Your task to perform on an android device: Open Amazon Image 0: 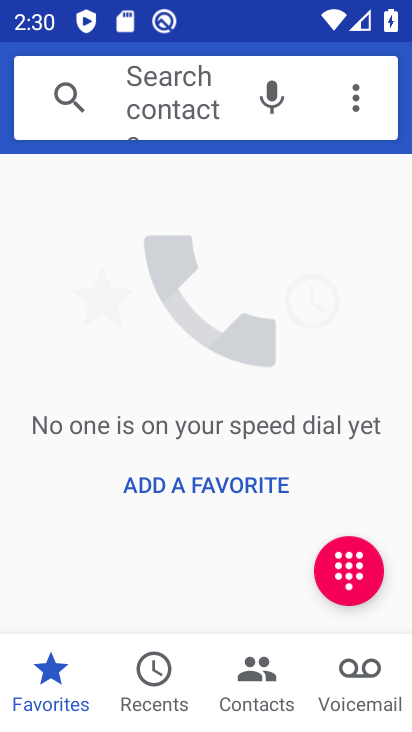
Step 0: press home button
Your task to perform on an android device: Open Amazon Image 1: 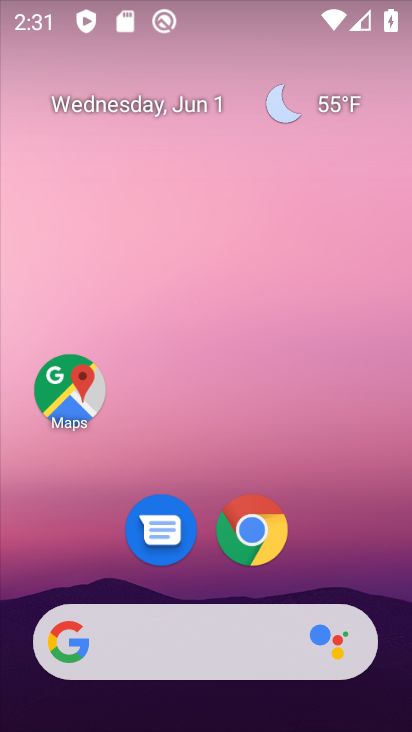
Step 1: click (176, 589)
Your task to perform on an android device: Open Amazon Image 2: 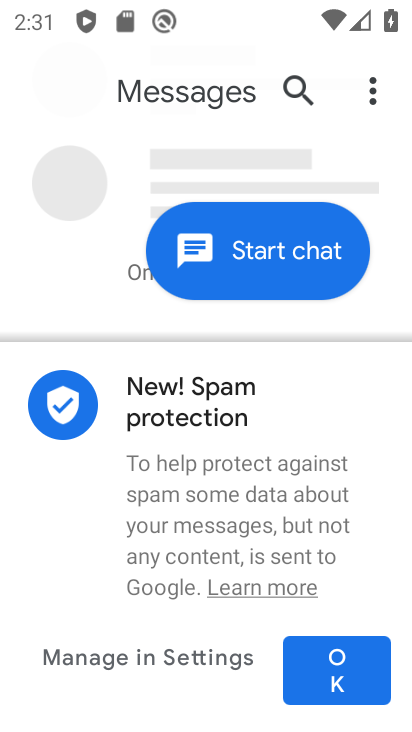
Step 2: click (176, 589)
Your task to perform on an android device: Open Amazon Image 3: 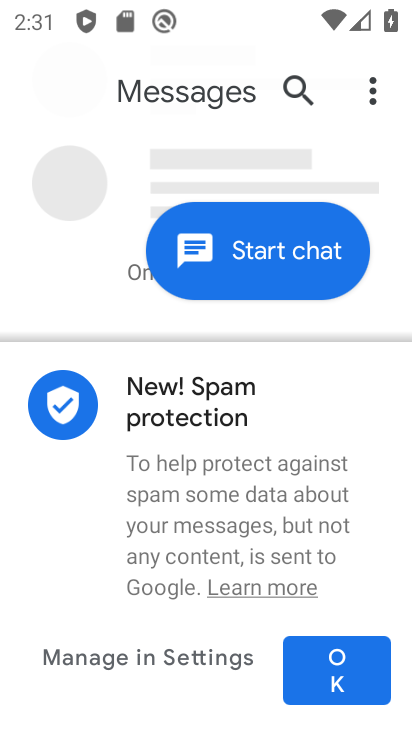
Step 3: press home button
Your task to perform on an android device: Open Amazon Image 4: 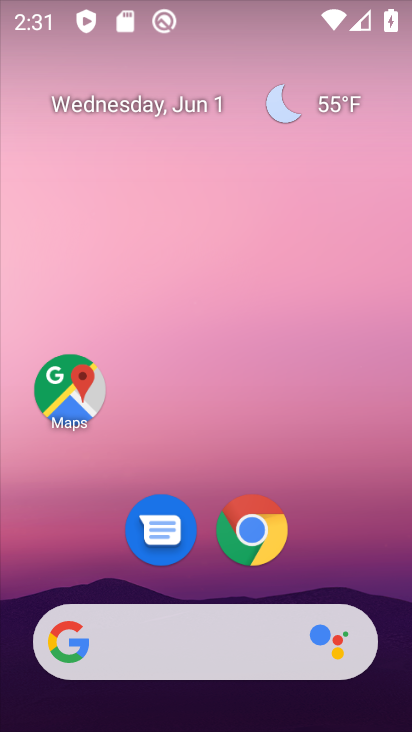
Step 4: click (278, 526)
Your task to perform on an android device: Open Amazon Image 5: 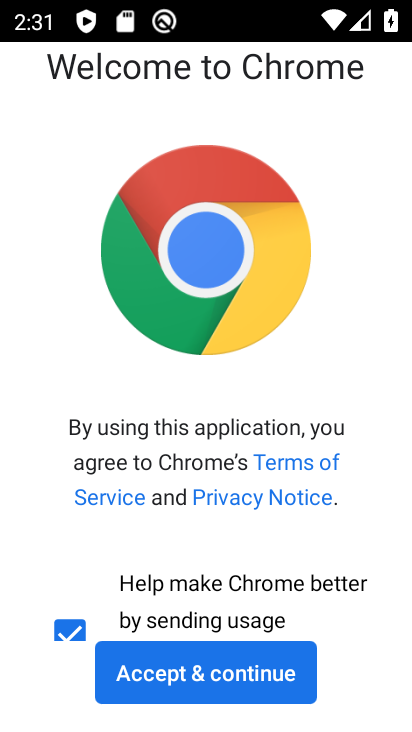
Step 5: click (222, 653)
Your task to perform on an android device: Open Amazon Image 6: 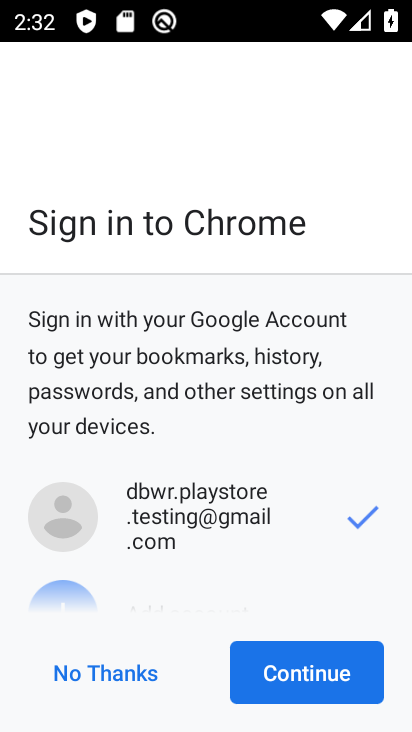
Step 6: click (305, 692)
Your task to perform on an android device: Open Amazon Image 7: 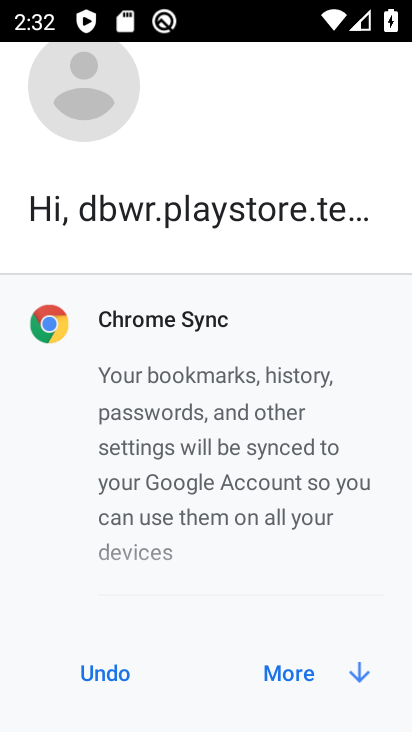
Step 7: click (302, 667)
Your task to perform on an android device: Open Amazon Image 8: 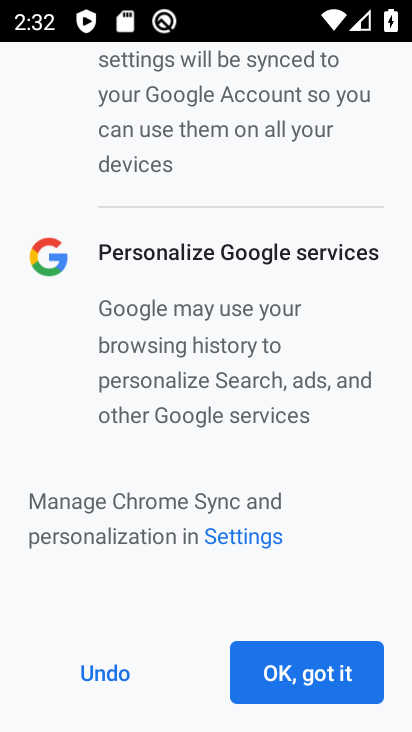
Step 8: click (302, 667)
Your task to perform on an android device: Open Amazon Image 9: 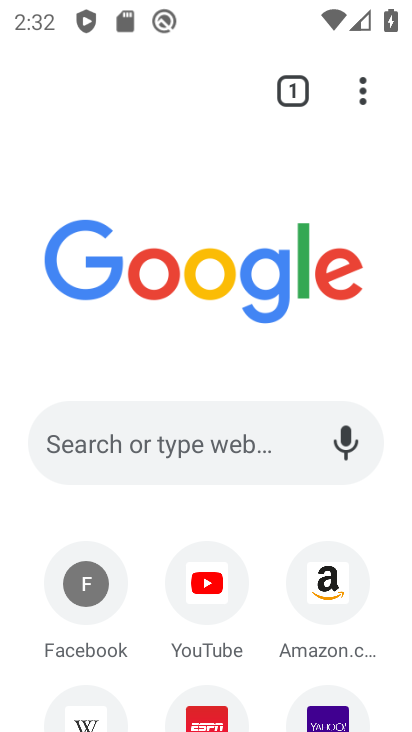
Step 9: click (333, 588)
Your task to perform on an android device: Open Amazon Image 10: 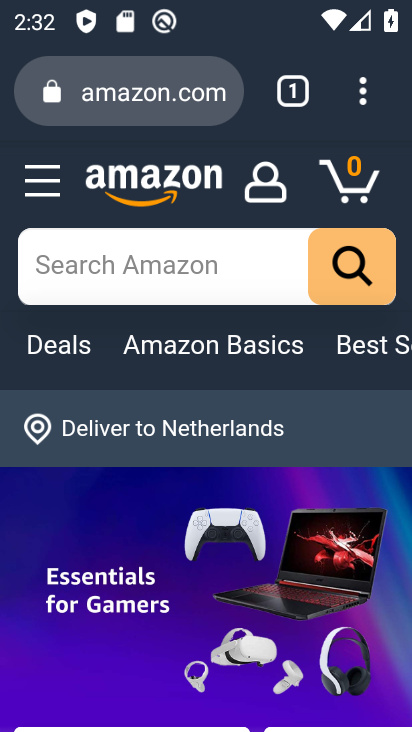
Step 10: click (333, 588)
Your task to perform on an android device: Open Amazon Image 11: 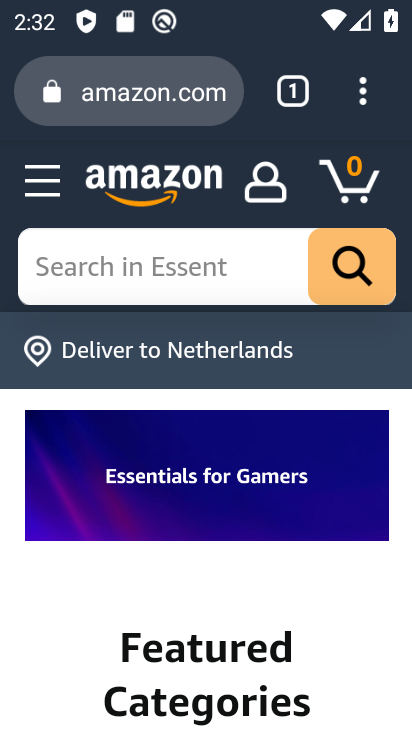
Step 11: click (333, 588)
Your task to perform on an android device: Open Amazon Image 12: 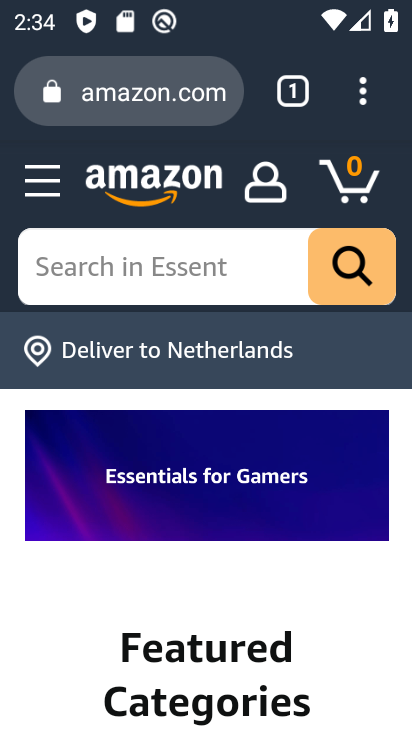
Step 12: task complete